Your task to perform on an android device: Open the calendar and show me this week's events? Image 0: 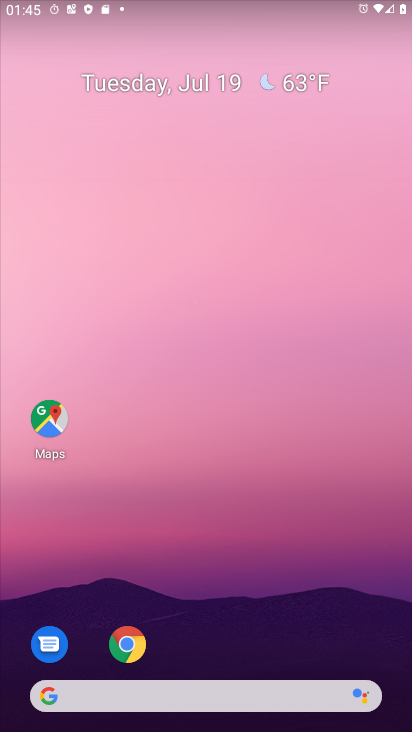
Step 0: drag from (187, 730) to (180, 105)
Your task to perform on an android device: Open the calendar and show me this week's events? Image 1: 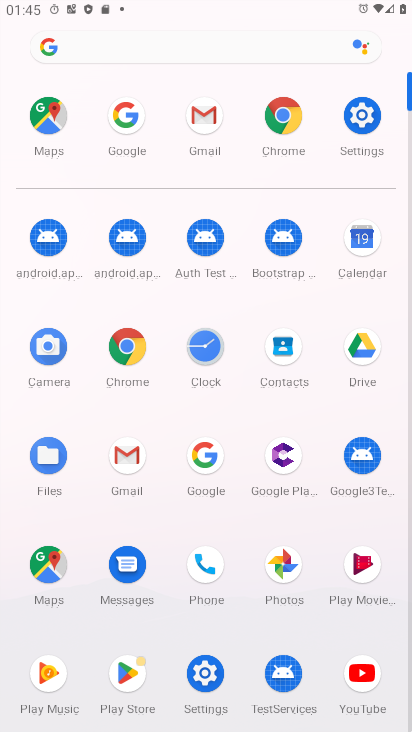
Step 1: click (363, 236)
Your task to perform on an android device: Open the calendar and show me this week's events? Image 2: 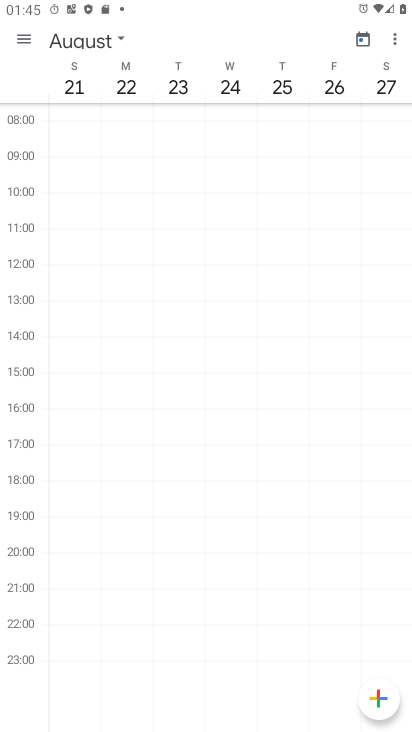
Step 2: click (113, 39)
Your task to perform on an android device: Open the calendar and show me this week's events? Image 3: 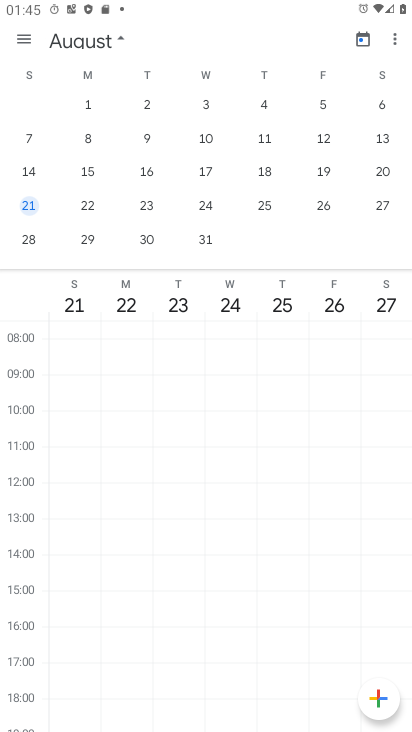
Step 3: drag from (54, 168) to (355, 165)
Your task to perform on an android device: Open the calendar and show me this week's events? Image 4: 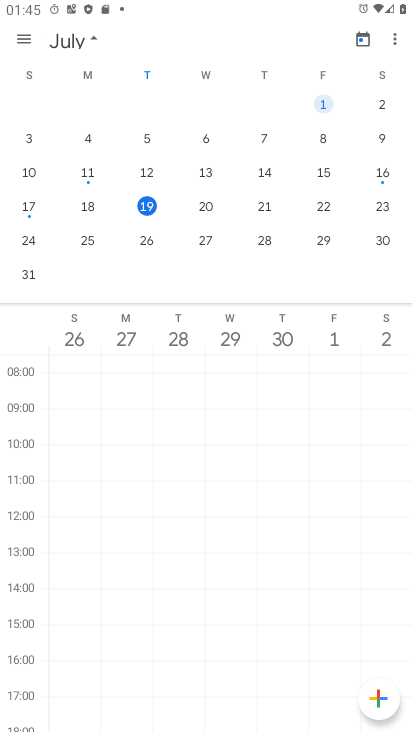
Step 4: click (18, 35)
Your task to perform on an android device: Open the calendar and show me this week's events? Image 5: 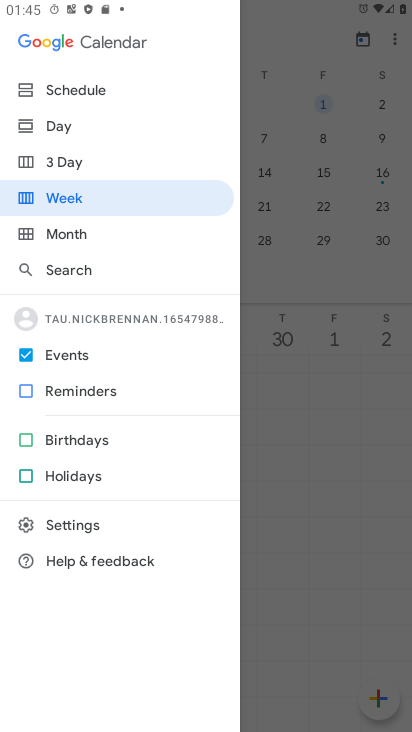
Step 5: click (76, 197)
Your task to perform on an android device: Open the calendar and show me this week's events? Image 6: 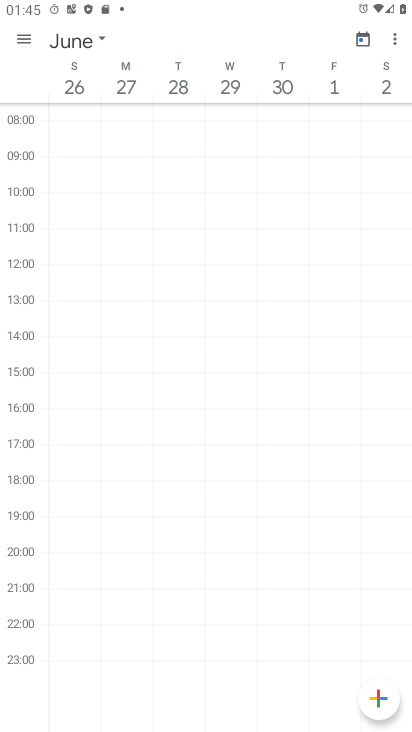
Step 6: task complete